Your task to perform on an android device: refresh tabs in the chrome app Image 0: 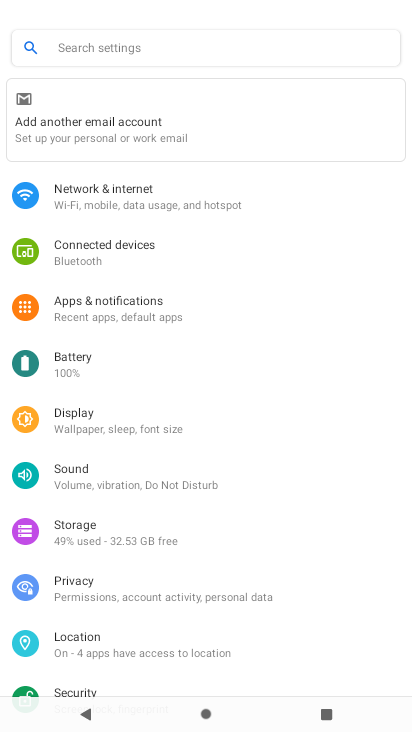
Step 0: press home button
Your task to perform on an android device: refresh tabs in the chrome app Image 1: 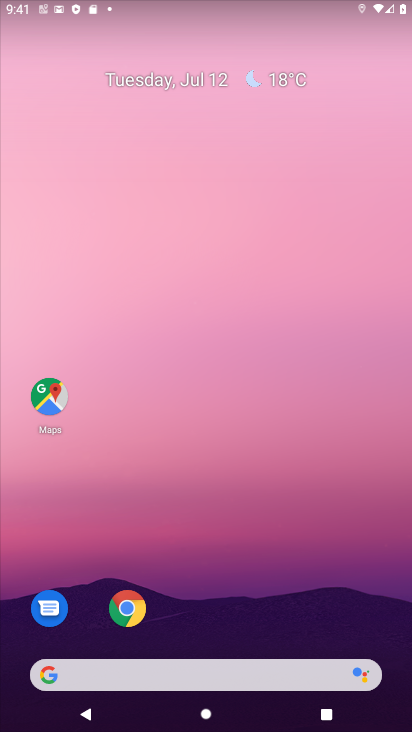
Step 1: click (133, 611)
Your task to perform on an android device: refresh tabs in the chrome app Image 2: 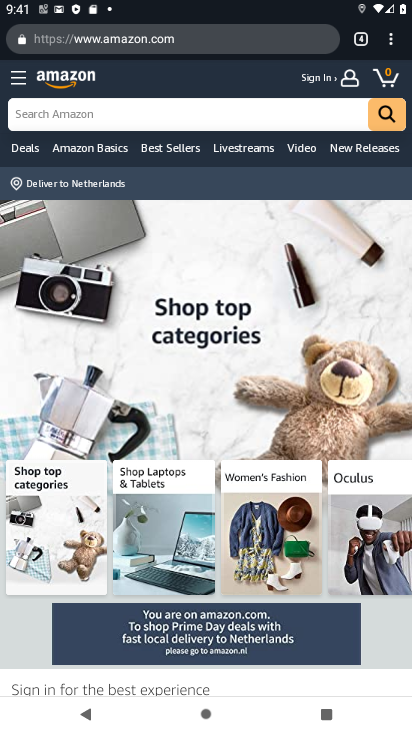
Step 2: click (390, 38)
Your task to perform on an android device: refresh tabs in the chrome app Image 3: 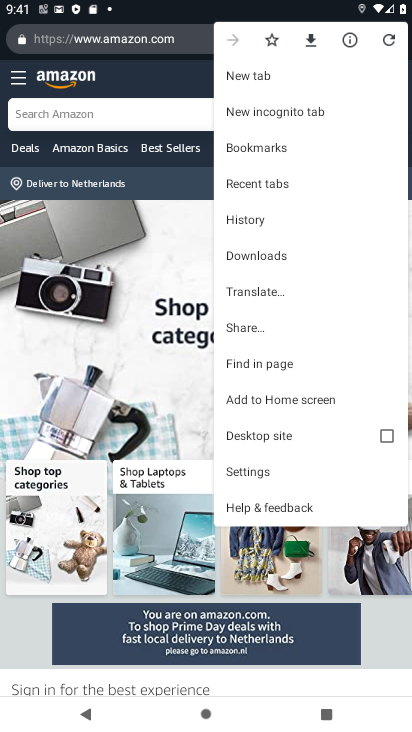
Step 3: click (390, 38)
Your task to perform on an android device: refresh tabs in the chrome app Image 4: 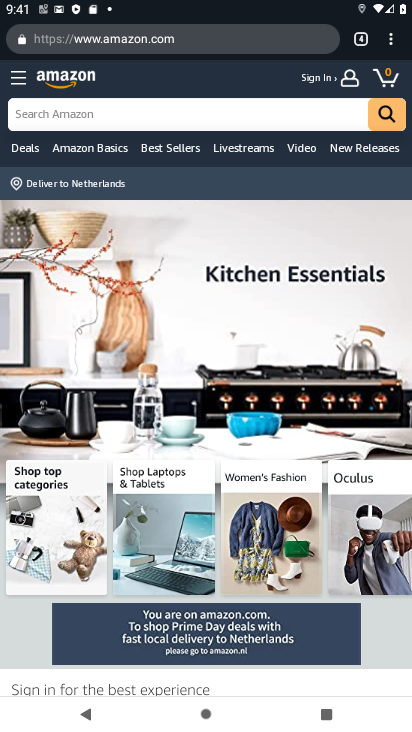
Step 4: task complete